Your task to perform on an android device: check android version Image 0: 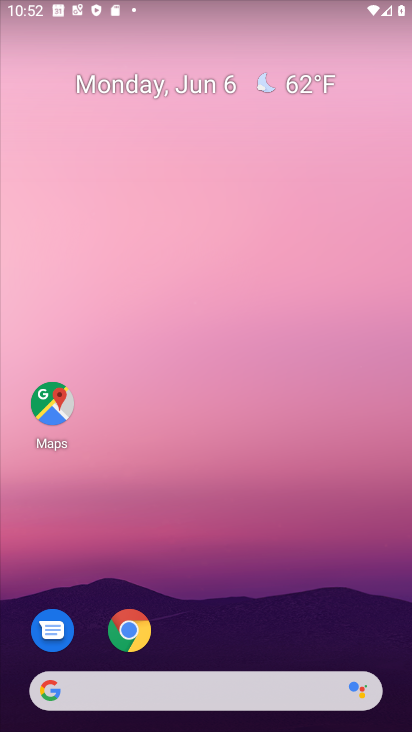
Step 0: drag from (257, 576) to (235, 123)
Your task to perform on an android device: check android version Image 1: 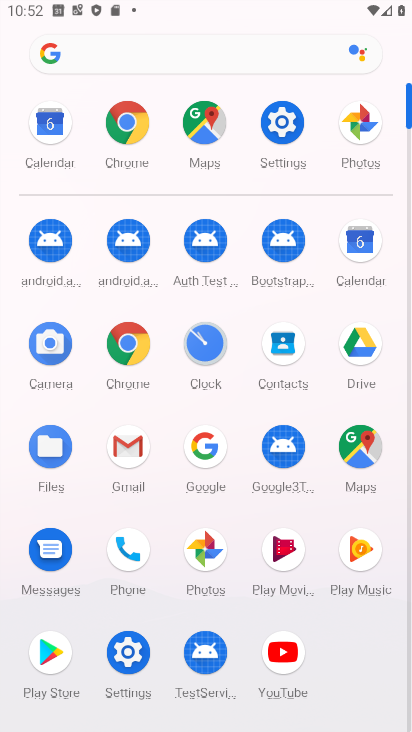
Step 1: click (283, 123)
Your task to perform on an android device: check android version Image 2: 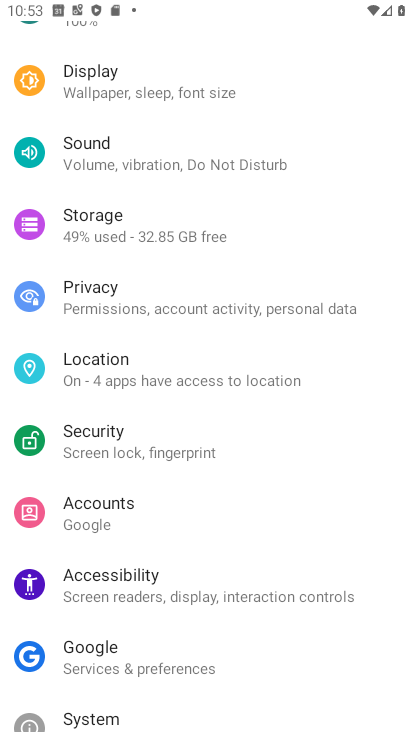
Step 2: drag from (213, 647) to (276, 260)
Your task to perform on an android device: check android version Image 3: 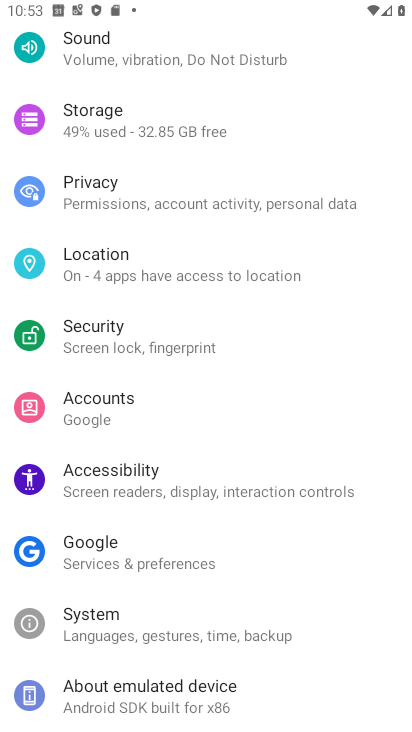
Step 3: click (154, 687)
Your task to perform on an android device: check android version Image 4: 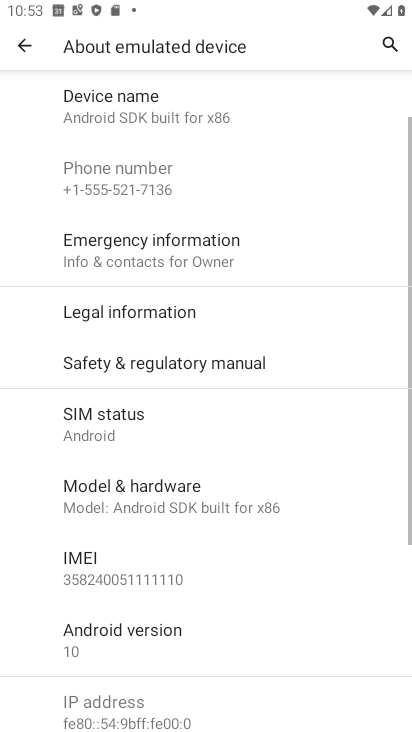
Step 4: click (154, 645)
Your task to perform on an android device: check android version Image 5: 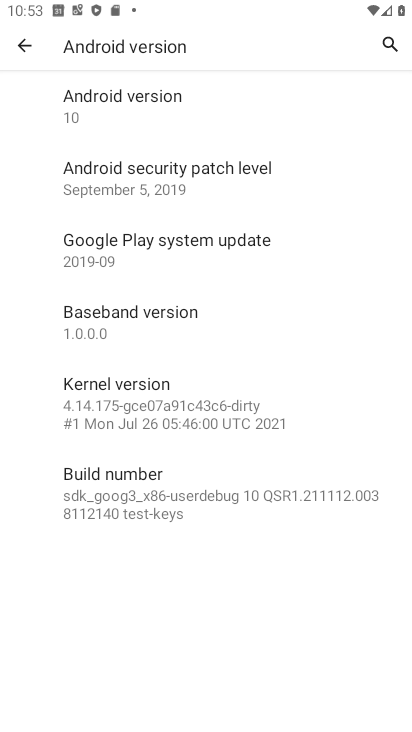
Step 5: task complete